Your task to perform on an android device: see creations saved in the google photos Image 0: 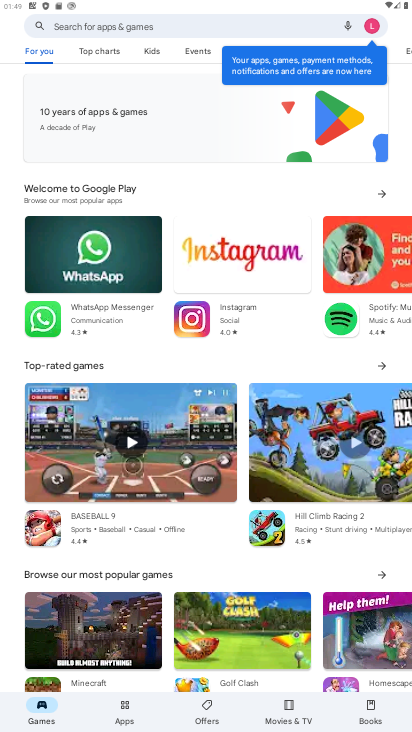
Step 0: press home button
Your task to perform on an android device: see creations saved in the google photos Image 1: 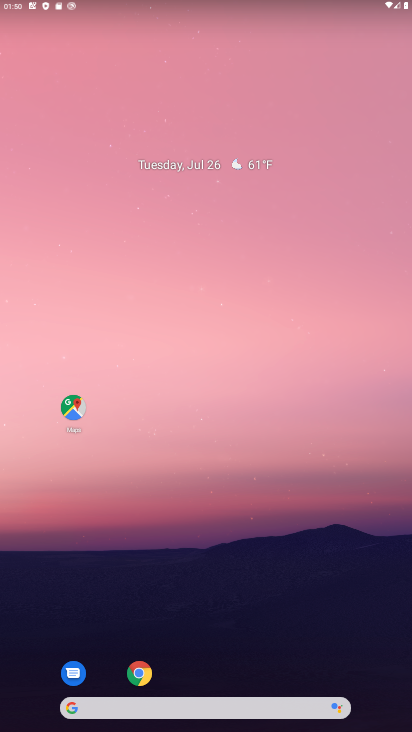
Step 1: drag from (217, 726) to (164, 193)
Your task to perform on an android device: see creations saved in the google photos Image 2: 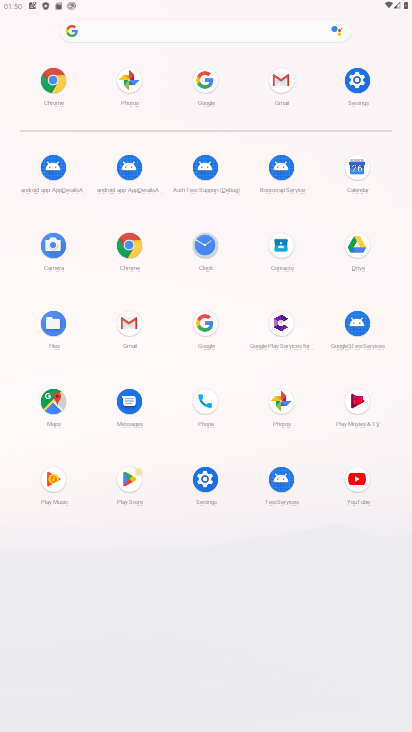
Step 2: click (284, 403)
Your task to perform on an android device: see creations saved in the google photos Image 3: 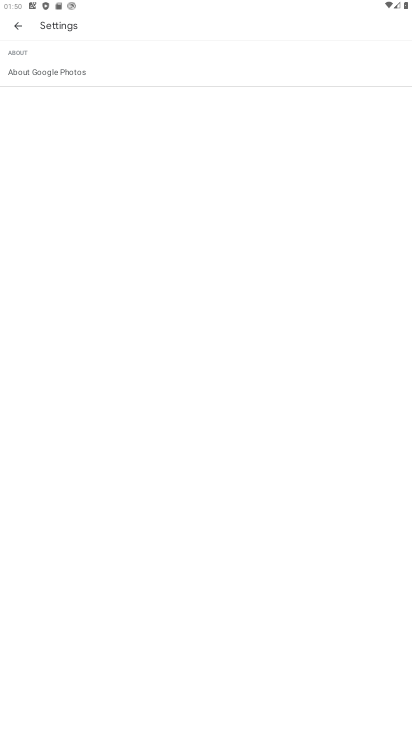
Step 3: click (14, 25)
Your task to perform on an android device: see creations saved in the google photos Image 4: 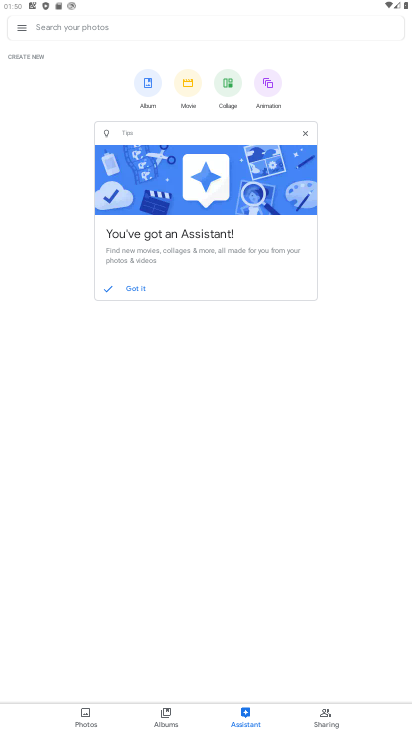
Step 4: click (145, 27)
Your task to perform on an android device: see creations saved in the google photos Image 5: 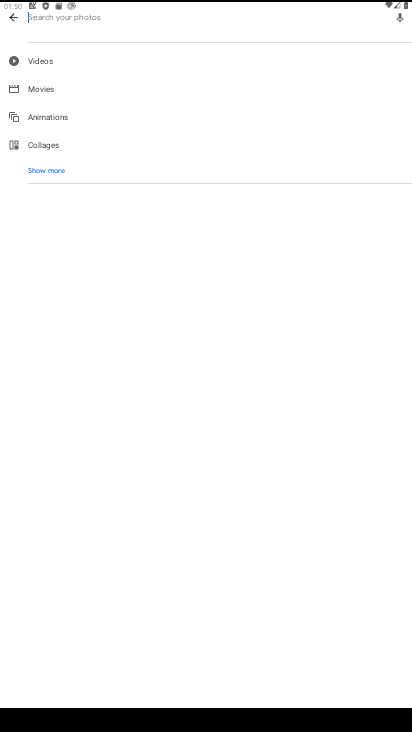
Step 5: click (153, 554)
Your task to perform on an android device: see creations saved in the google photos Image 6: 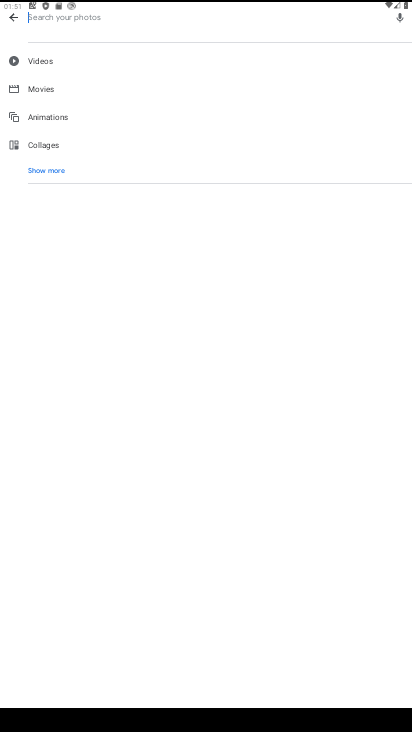
Step 6: click (33, 168)
Your task to perform on an android device: see creations saved in the google photos Image 7: 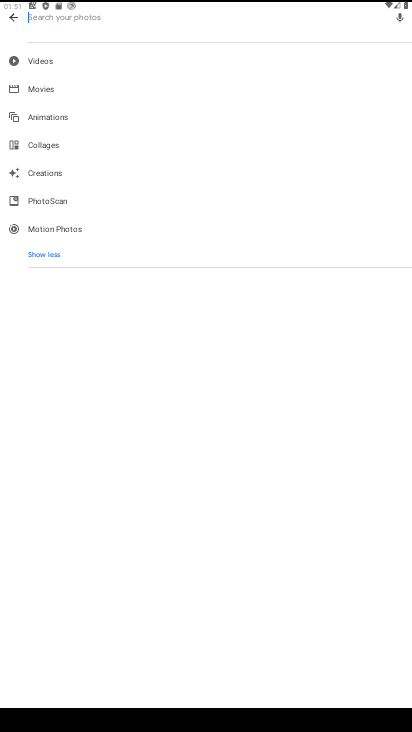
Step 7: click (42, 169)
Your task to perform on an android device: see creations saved in the google photos Image 8: 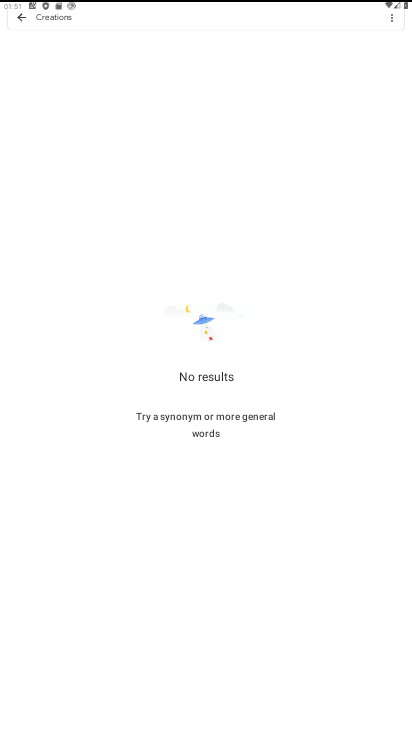
Step 8: task complete